Your task to perform on an android device: allow notifications from all sites in the chrome app Image 0: 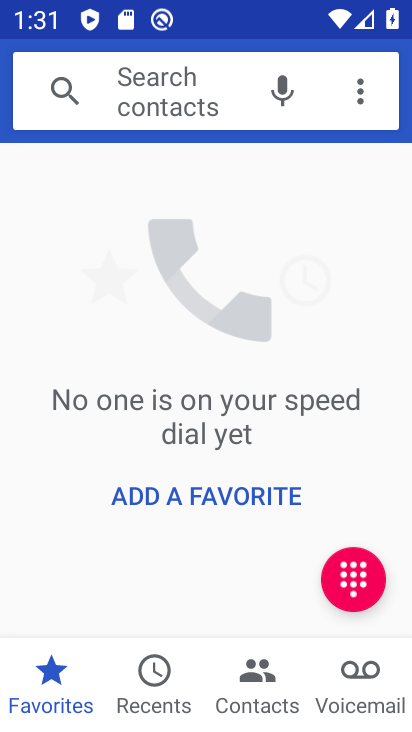
Step 0: press home button
Your task to perform on an android device: allow notifications from all sites in the chrome app Image 1: 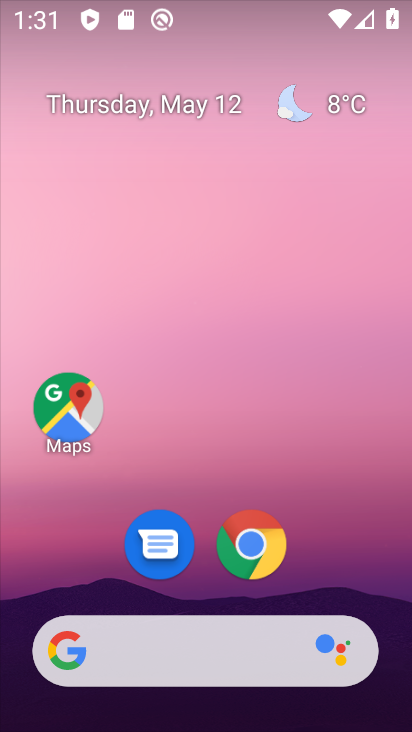
Step 1: drag from (72, 611) to (218, 126)
Your task to perform on an android device: allow notifications from all sites in the chrome app Image 2: 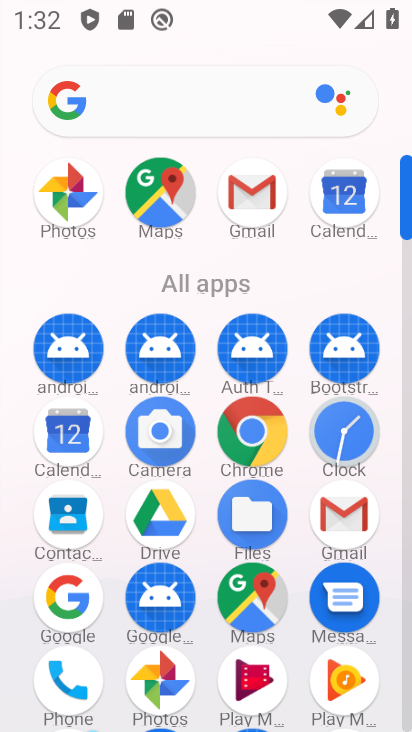
Step 2: click (240, 423)
Your task to perform on an android device: allow notifications from all sites in the chrome app Image 3: 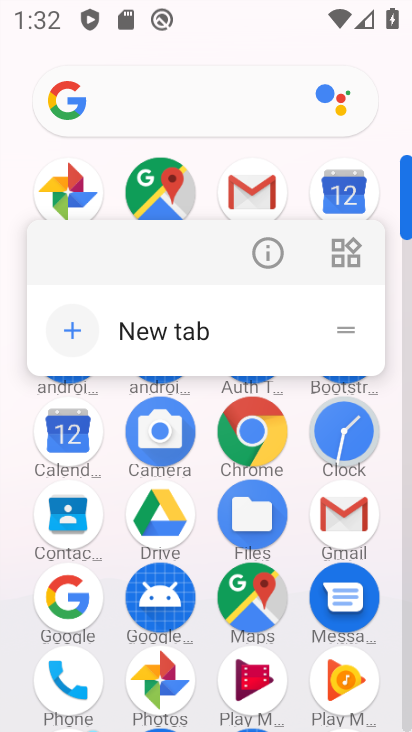
Step 3: click (250, 433)
Your task to perform on an android device: allow notifications from all sites in the chrome app Image 4: 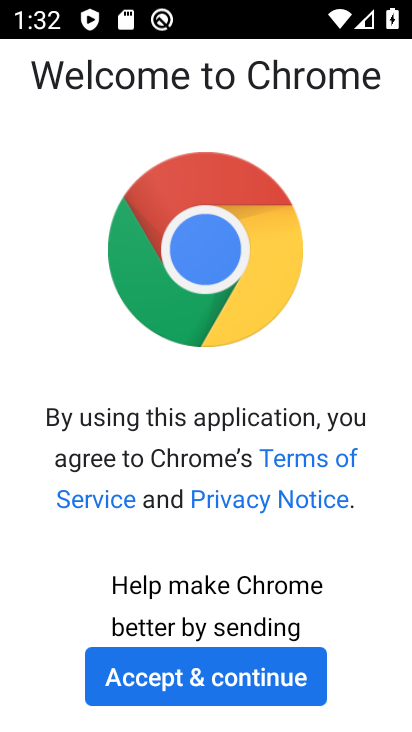
Step 4: click (261, 685)
Your task to perform on an android device: allow notifications from all sites in the chrome app Image 5: 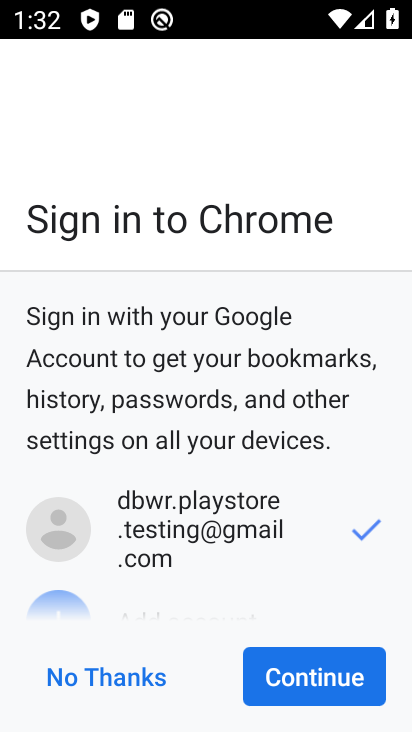
Step 5: click (331, 712)
Your task to perform on an android device: allow notifications from all sites in the chrome app Image 6: 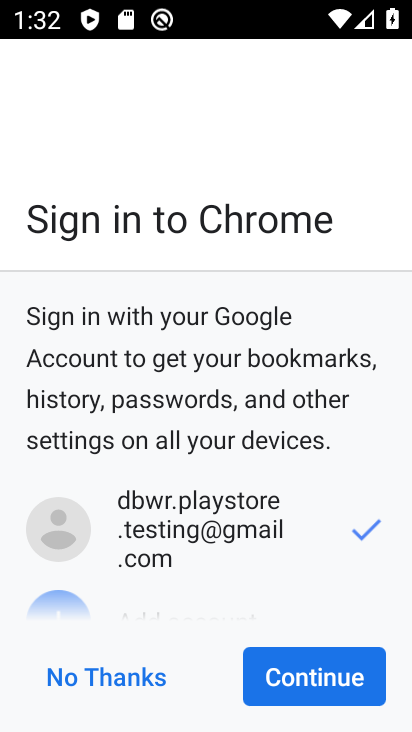
Step 6: click (328, 693)
Your task to perform on an android device: allow notifications from all sites in the chrome app Image 7: 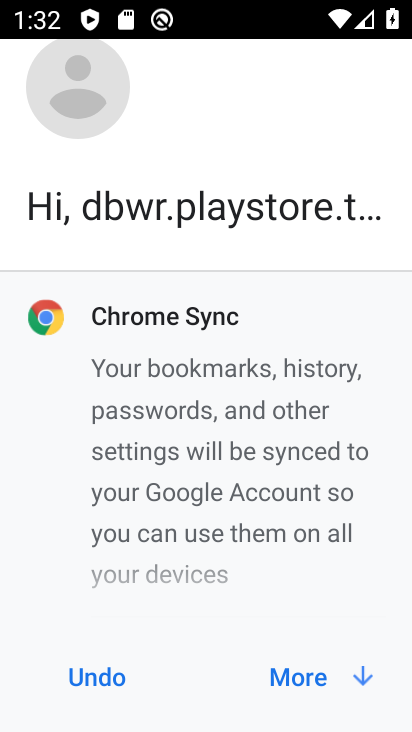
Step 7: click (314, 684)
Your task to perform on an android device: allow notifications from all sites in the chrome app Image 8: 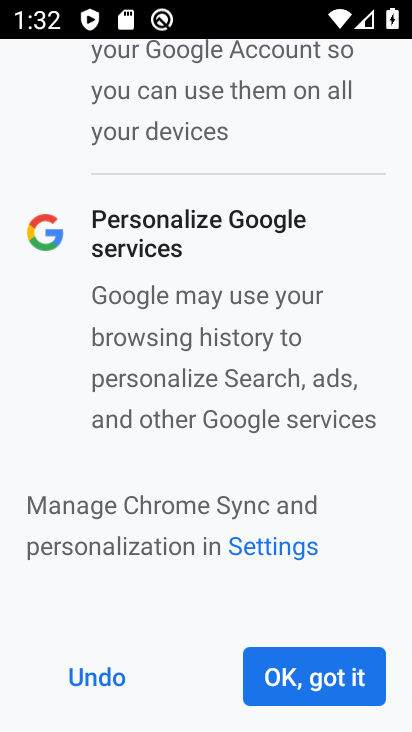
Step 8: click (301, 678)
Your task to perform on an android device: allow notifications from all sites in the chrome app Image 9: 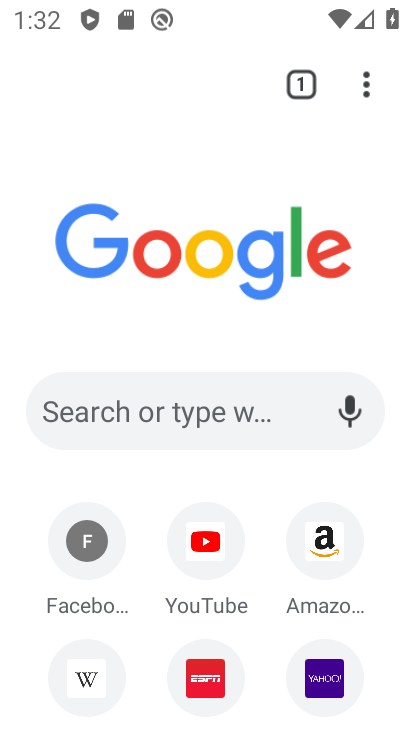
Step 9: click (382, 95)
Your task to perform on an android device: allow notifications from all sites in the chrome app Image 10: 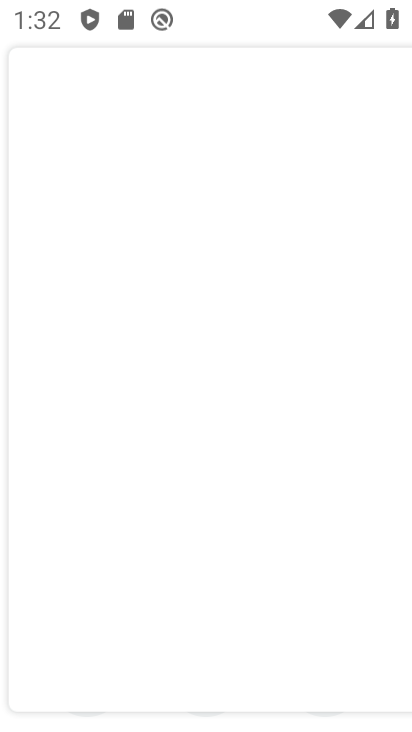
Step 10: drag from (378, 91) to (270, 242)
Your task to perform on an android device: allow notifications from all sites in the chrome app Image 11: 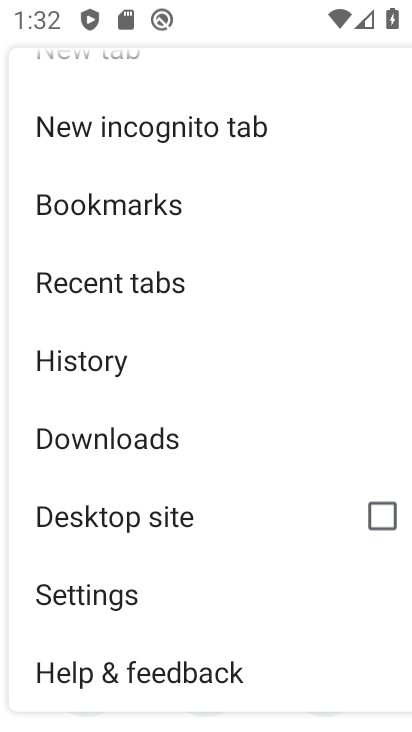
Step 11: click (98, 605)
Your task to perform on an android device: allow notifications from all sites in the chrome app Image 12: 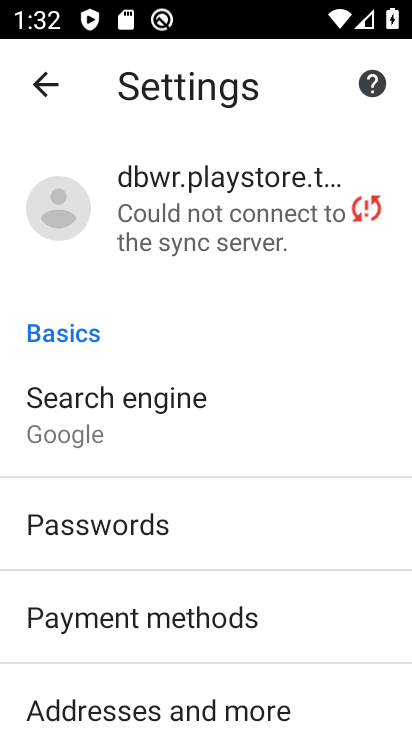
Step 12: drag from (198, 634) to (305, 230)
Your task to perform on an android device: allow notifications from all sites in the chrome app Image 13: 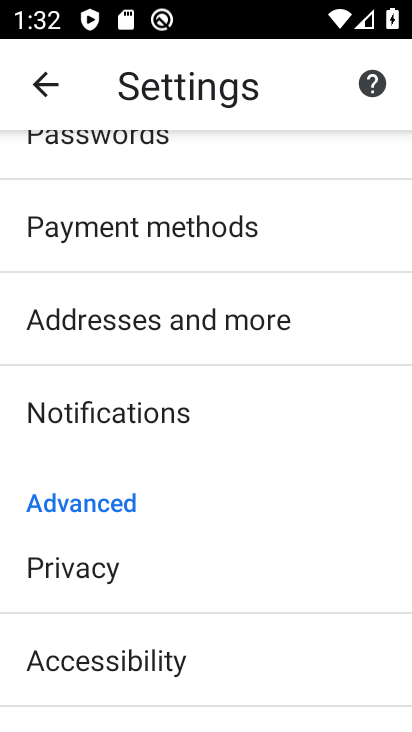
Step 13: drag from (195, 529) to (288, 269)
Your task to perform on an android device: allow notifications from all sites in the chrome app Image 14: 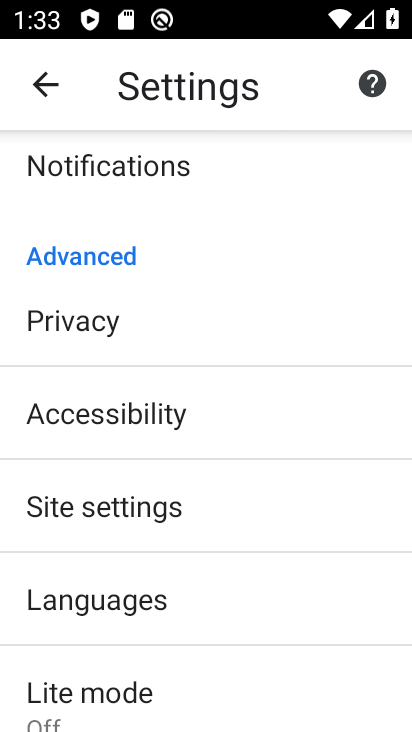
Step 14: click (145, 517)
Your task to perform on an android device: allow notifications from all sites in the chrome app Image 15: 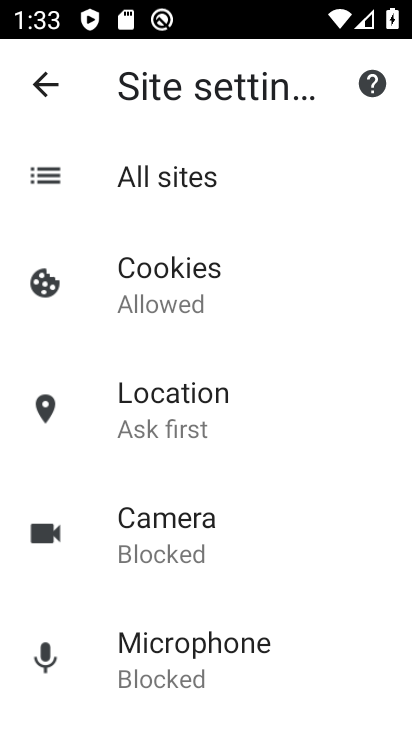
Step 15: drag from (233, 672) to (349, 116)
Your task to perform on an android device: allow notifications from all sites in the chrome app Image 16: 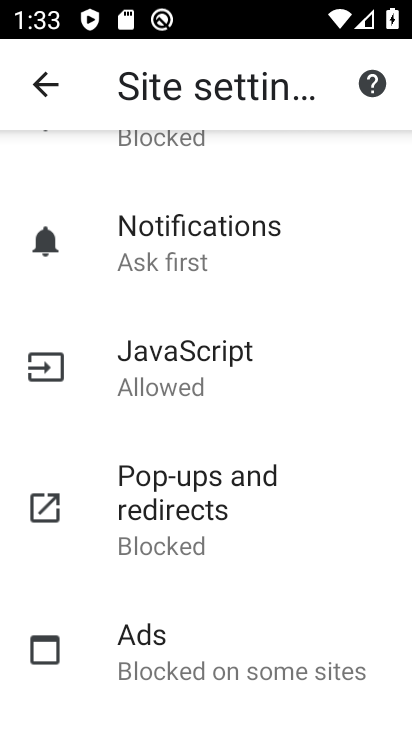
Step 16: click (201, 254)
Your task to perform on an android device: allow notifications from all sites in the chrome app Image 17: 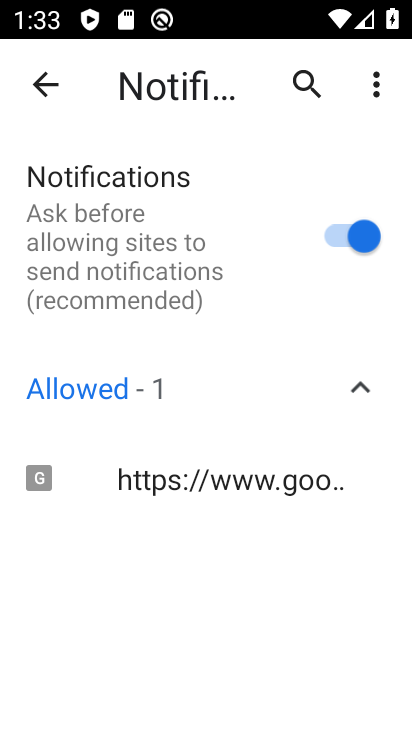
Step 17: click (248, 488)
Your task to perform on an android device: allow notifications from all sites in the chrome app Image 18: 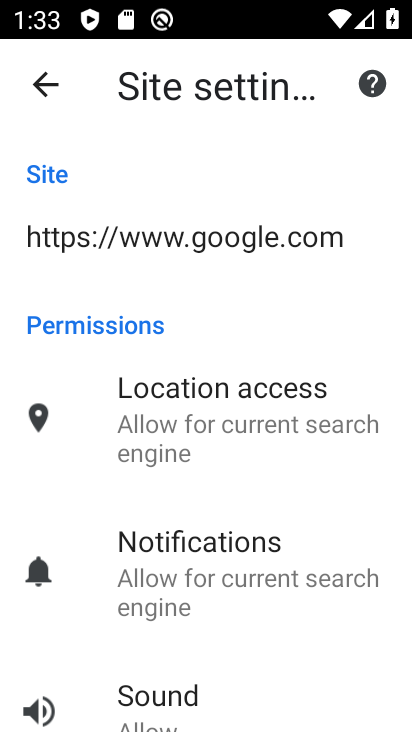
Step 18: task complete